Your task to perform on an android device: choose inbox layout in the gmail app Image 0: 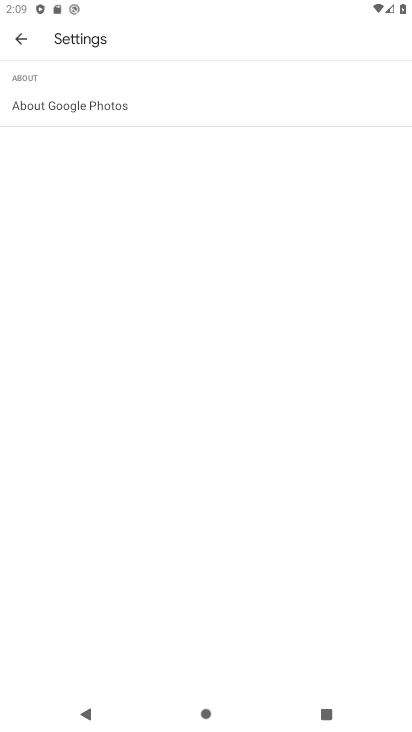
Step 0: drag from (253, 652) to (243, 513)
Your task to perform on an android device: choose inbox layout in the gmail app Image 1: 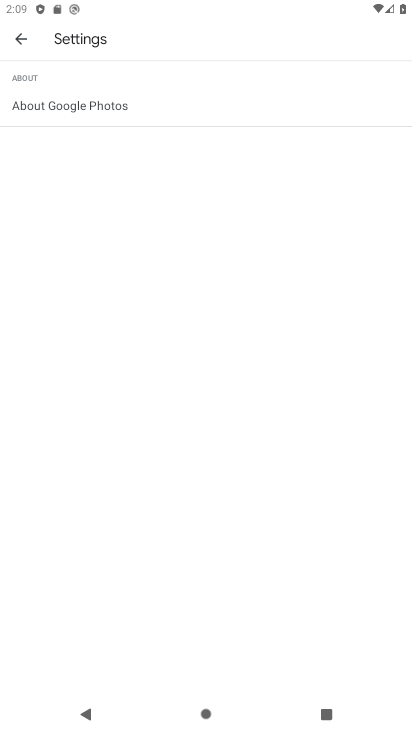
Step 1: drag from (169, 659) to (171, 430)
Your task to perform on an android device: choose inbox layout in the gmail app Image 2: 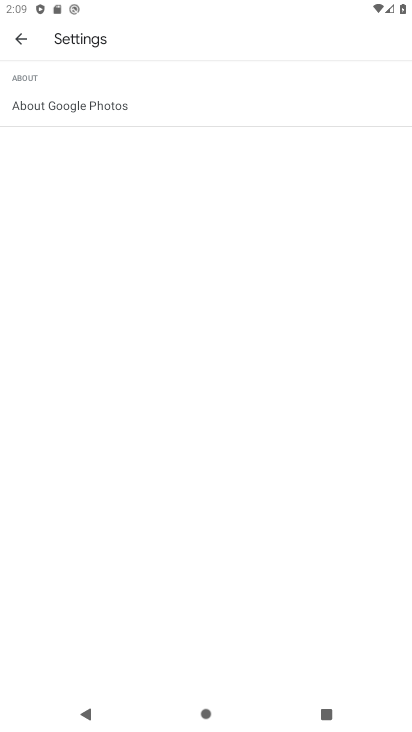
Step 2: click (26, 42)
Your task to perform on an android device: choose inbox layout in the gmail app Image 3: 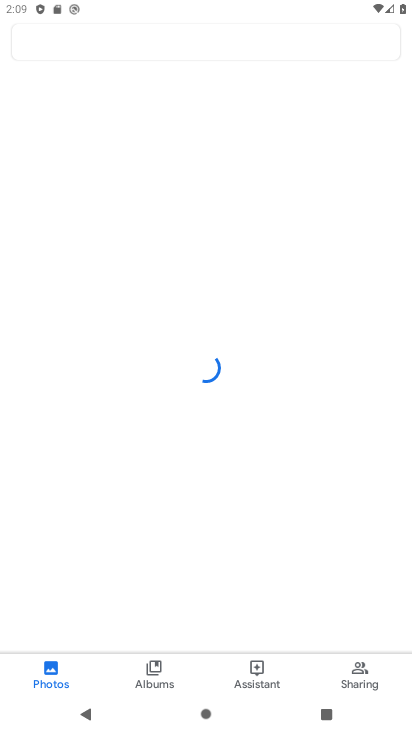
Step 3: drag from (199, 602) to (207, 306)
Your task to perform on an android device: choose inbox layout in the gmail app Image 4: 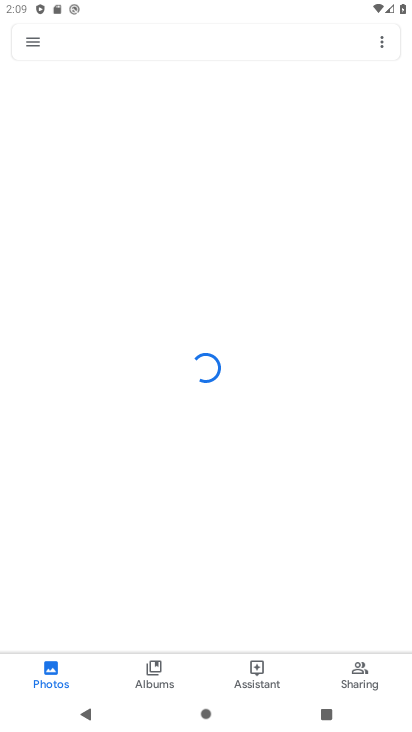
Step 4: drag from (250, 596) to (253, 516)
Your task to perform on an android device: choose inbox layout in the gmail app Image 5: 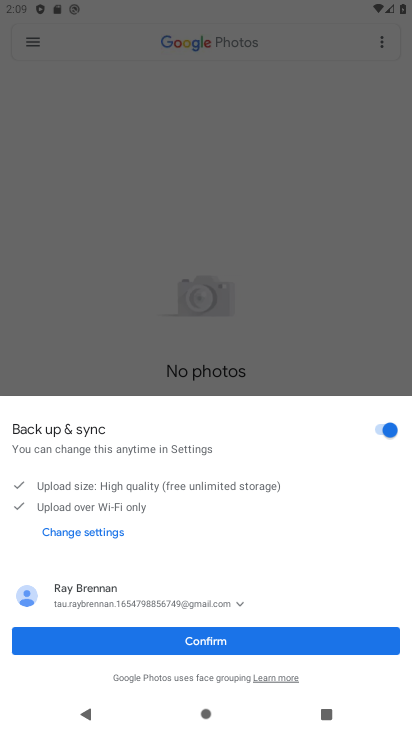
Step 5: click (174, 644)
Your task to perform on an android device: choose inbox layout in the gmail app Image 6: 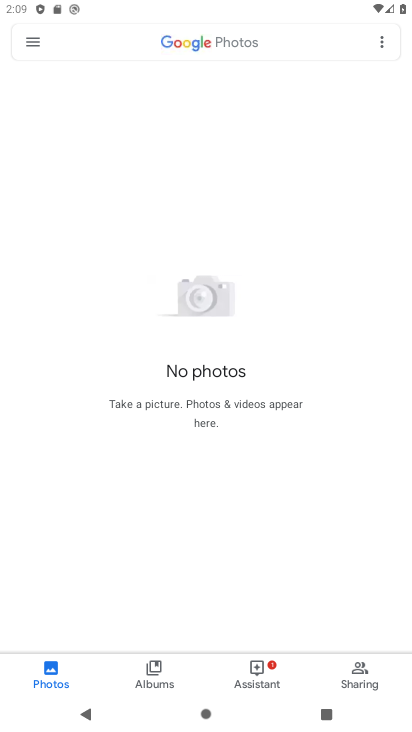
Step 6: press home button
Your task to perform on an android device: choose inbox layout in the gmail app Image 7: 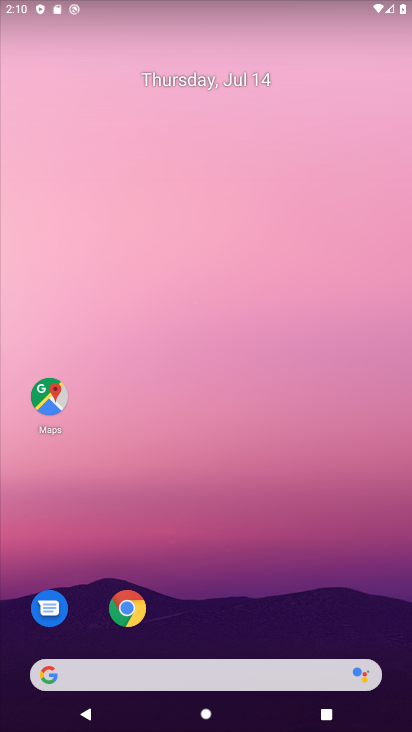
Step 7: drag from (191, 427) to (196, 299)
Your task to perform on an android device: choose inbox layout in the gmail app Image 8: 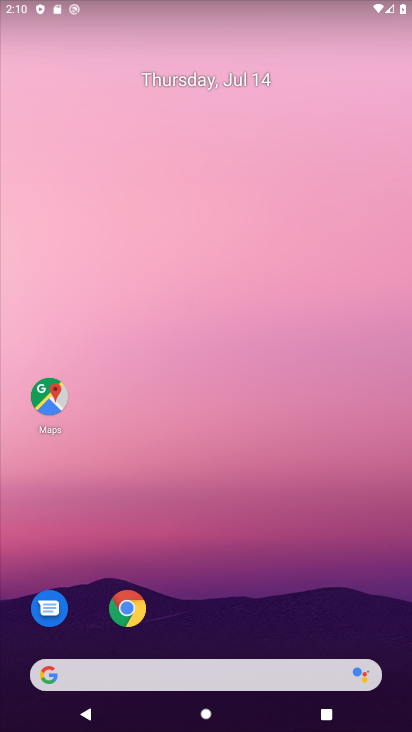
Step 8: drag from (171, 621) to (249, 75)
Your task to perform on an android device: choose inbox layout in the gmail app Image 9: 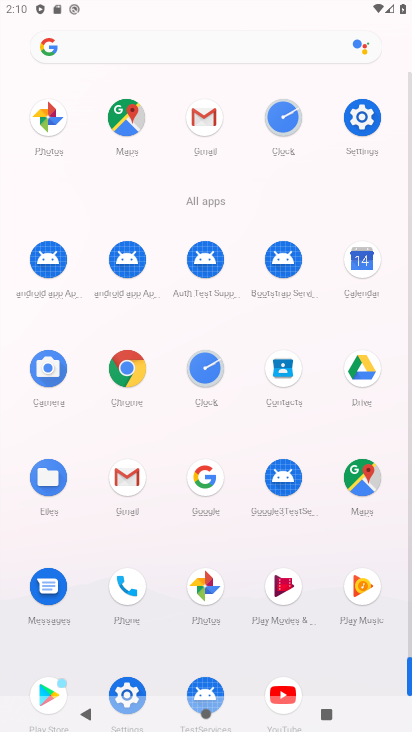
Step 9: click (116, 469)
Your task to perform on an android device: choose inbox layout in the gmail app Image 10: 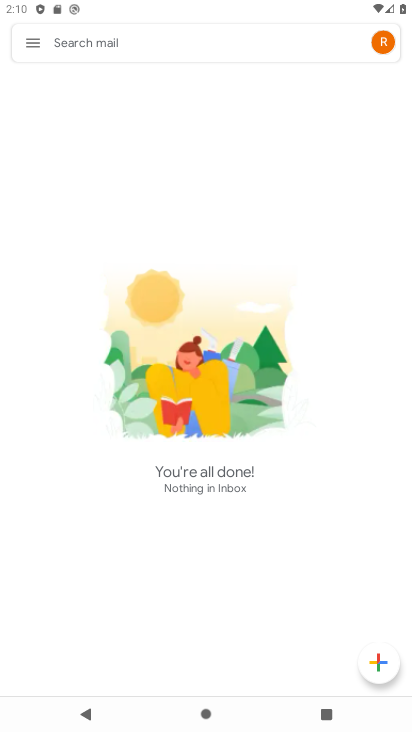
Step 10: drag from (206, 587) to (223, 319)
Your task to perform on an android device: choose inbox layout in the gmail app Image 11: 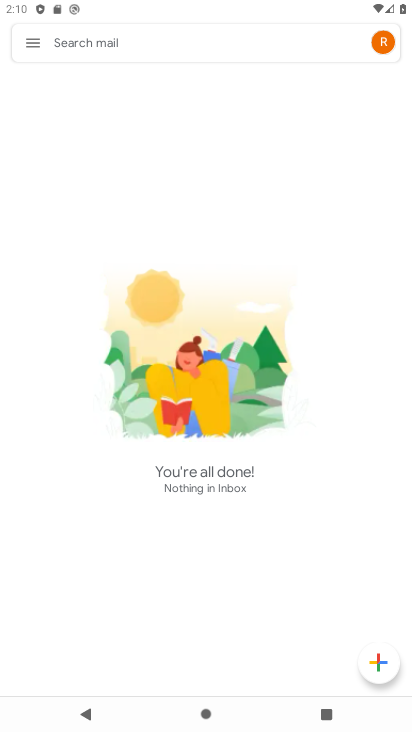
Step 11: click (22, 43)
Your task to perform on an android device: choose inbox layout in the gmail app Image 12: 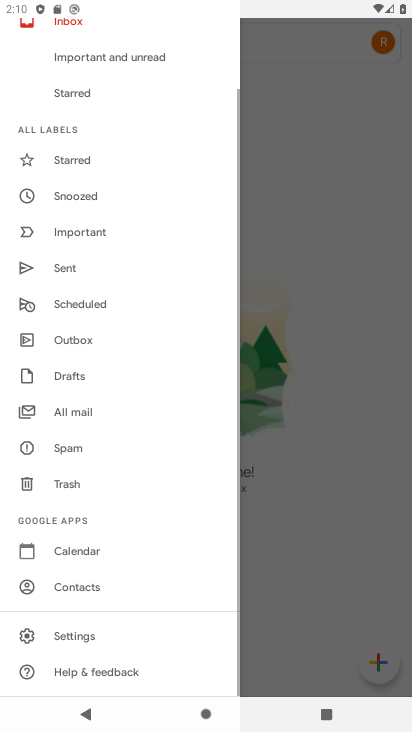
Step 12: drag from (122, 572) to (139, 329)
Your task to perform on an android device: choose inbox layout in the gmail app Image 13: 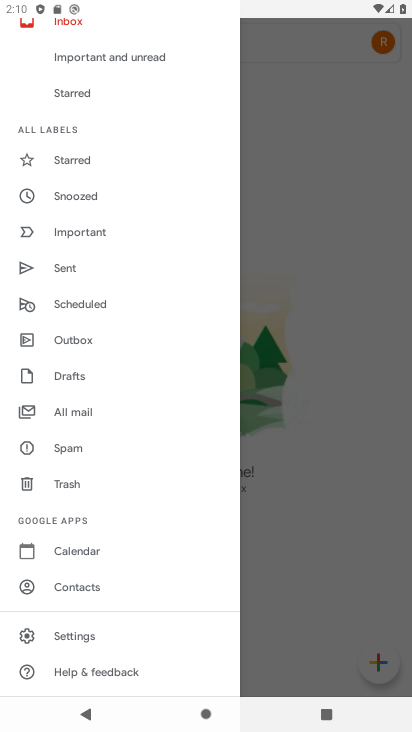
Step 13: click (74, 636)
Your task to perform on an android device: choose inbox layout in the gmail app Image 14: 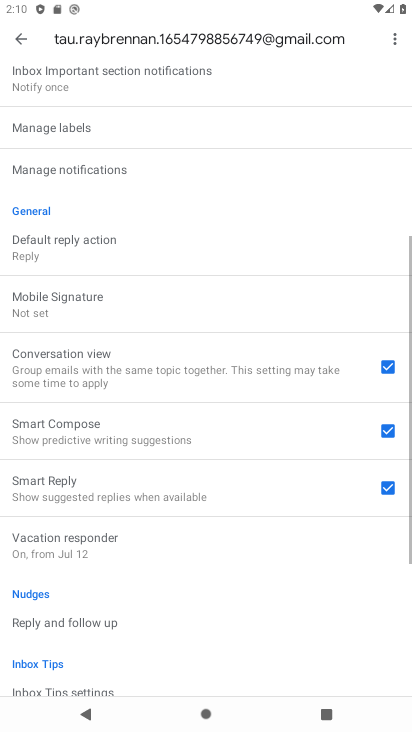
Step 14: drag from (136, 603) to (159, 204)
Your task to perform on an android device: choose inbox layout in the gmail app Image 15: 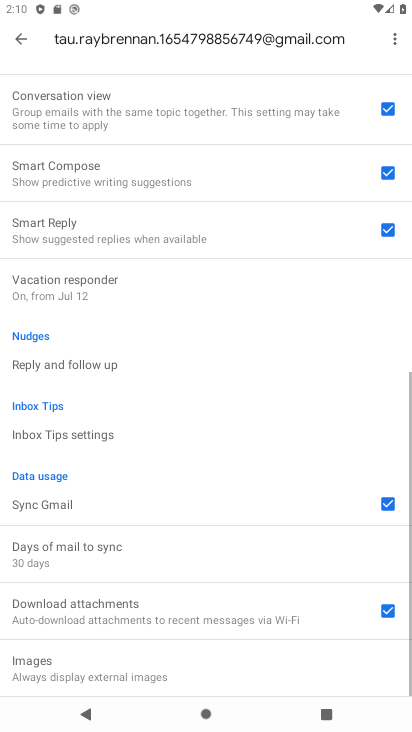
Step 15: drag from (171, 146) to (200, 725)
Your task to perform on an android device: choose inbox layout in the gmail app Image 16: 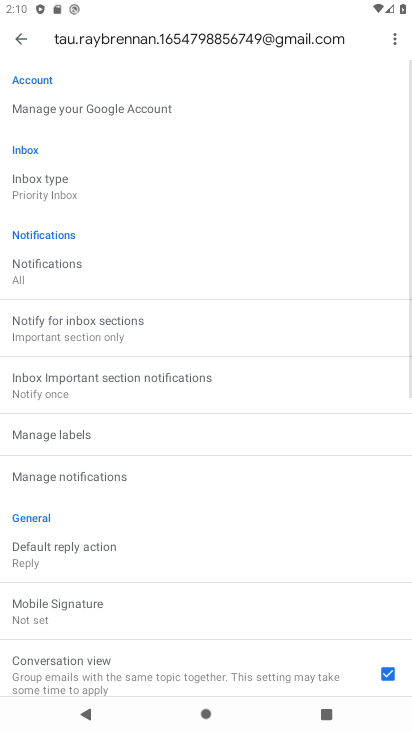
Step 16: drag from (127, 180) to (180, 655)
Your task to perform on an android device: choose inbox layout in the gmail app Image 17: 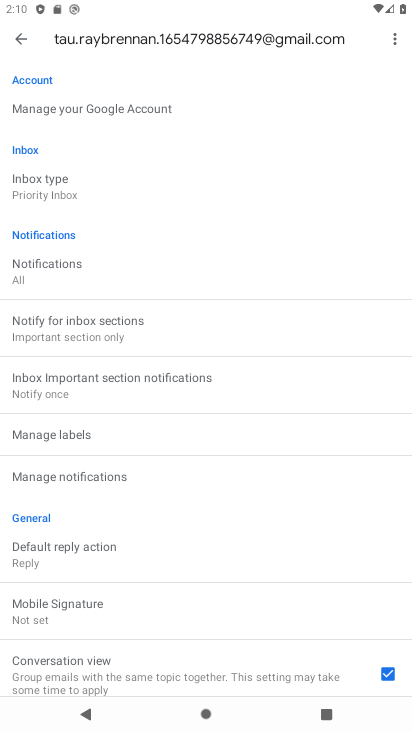
Step 17: click (86, 195)
Your task to perform on an android device: choose inbox layout in the gmail app Image 18: 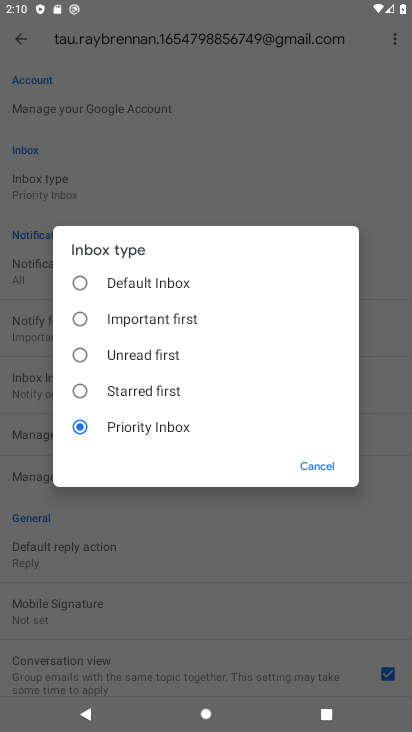
Step 18: click (112, 283)
Your task to perform on an android device: choose inbox layout in the gmail app Image 19: 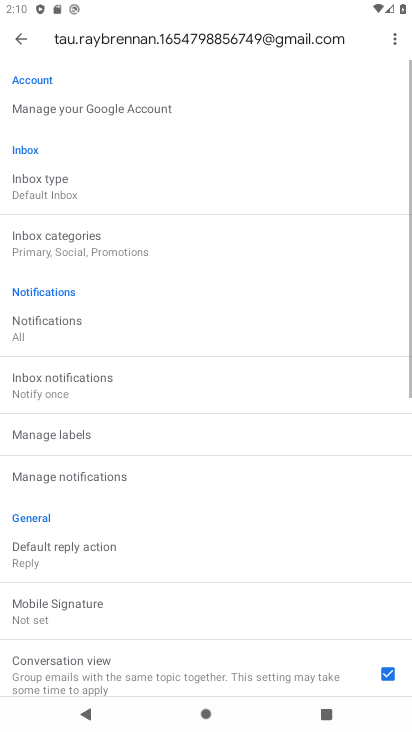
Step 19: task complete